Your task to perform on an android device: Open Youtube and go to "Your channel" Image 0: 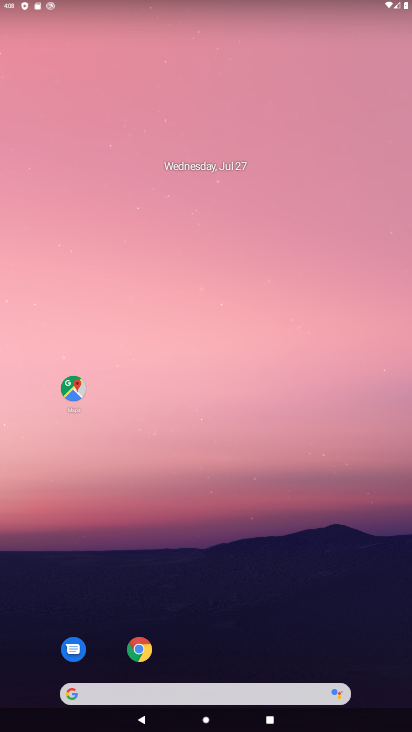
Step 0: click (211, 2)
Your task to perform on an android device: Open Youtube and go to "Your channel" Image 1: 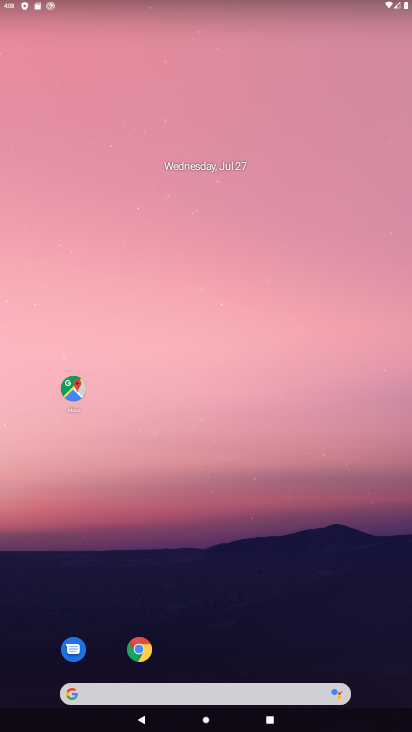
Step 1: drag from (180, 535) to (279, 21)
Your task to perform on an android device: Open Youtube and go to "Your channel" Image 2: 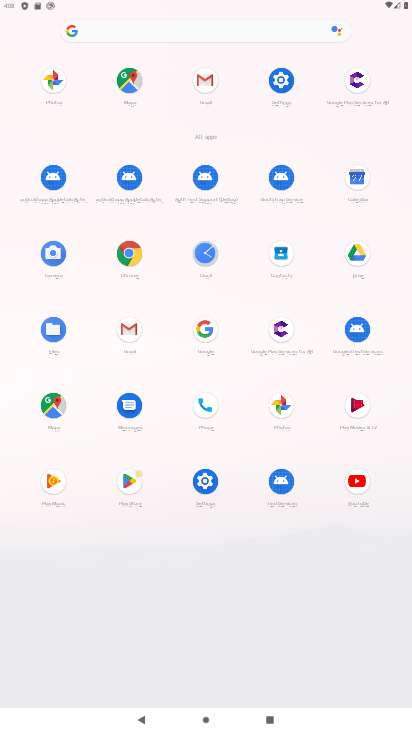
Step 2: click (362, 485)
Your task to perform on an android device: Open Youtube and go to "Your channel" Image 3: 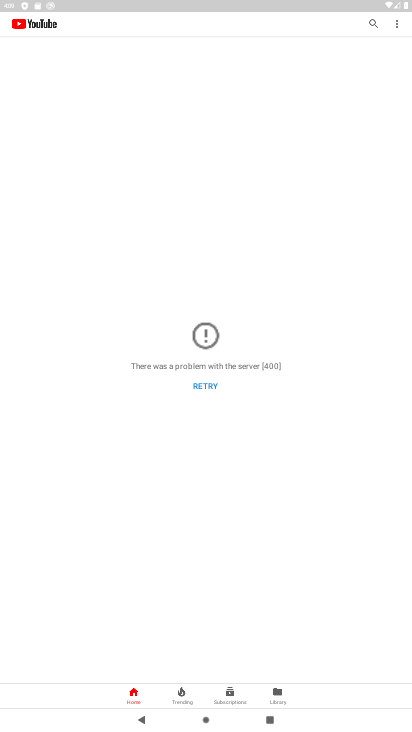
Step 3: click (279, 695)
Your task to perform on an android device: Open Youtube and go to "Your channel" Image 4: 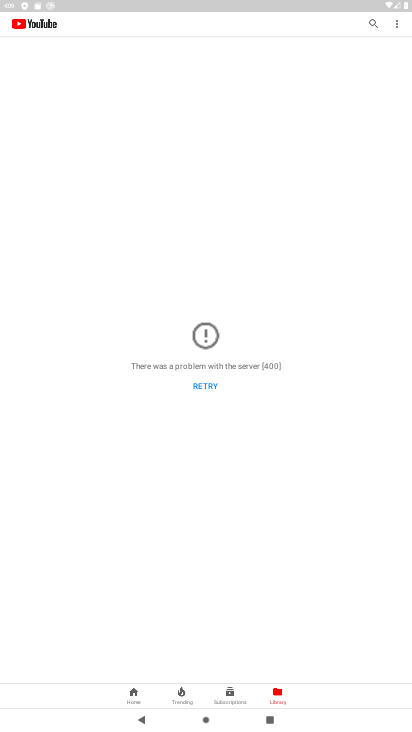
Step 4: task complete